Your task to perform on an android device: Is it going to rain tomorrow? Image 0: 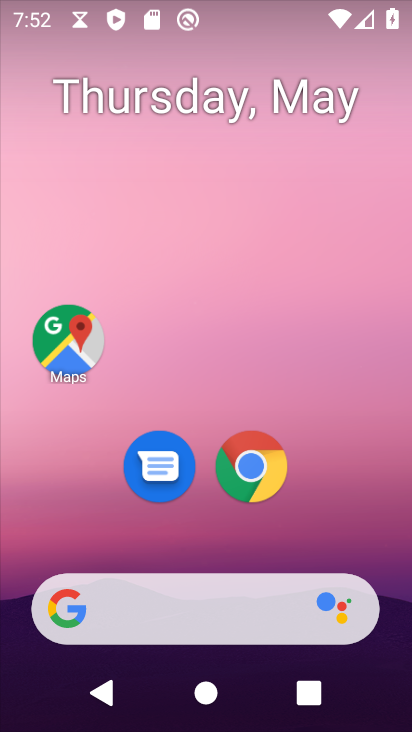
Step 0: click (104, 612)
Your task to perform on an android device: Is it going to rain tomorrow? Image 1: 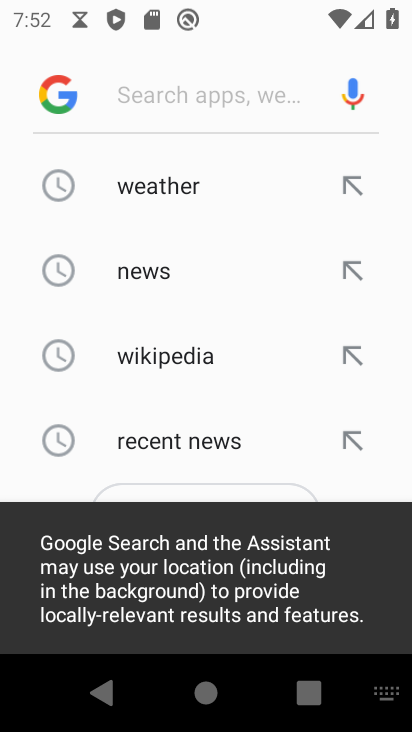
Step 1: click (147, 189)
Your task to perform on an android device: Is it going to rain tomorrow? Image 2: 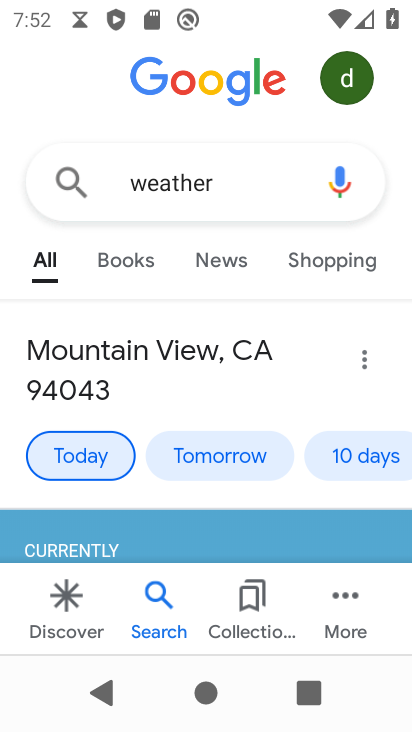
Step 2: click (224, 453)
Your task to perform on an android device: Is it going to rain tomorrow? Image 3: 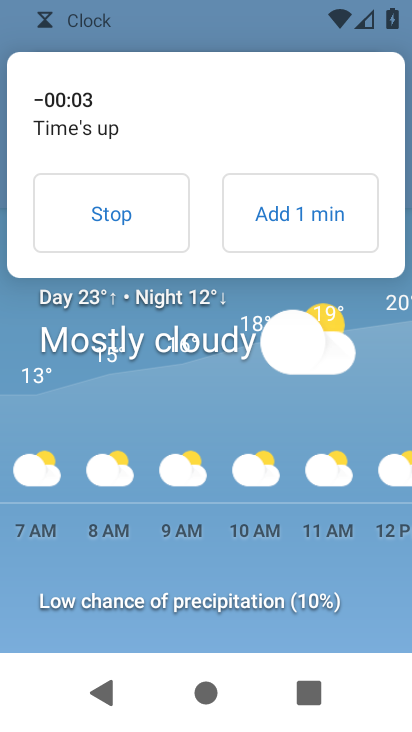
Step 3: click (108, 220)
Your task to perform on an android device: Is it going to rain tomorrow? Image 4: 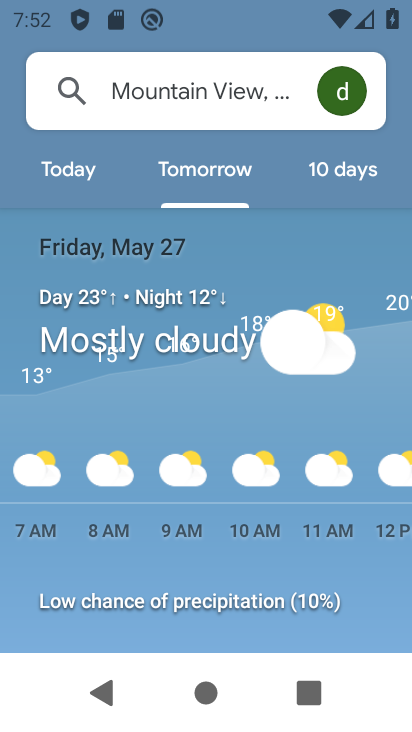
Step 4: task complete